Your task to perform on an android device: check storage Image 0: 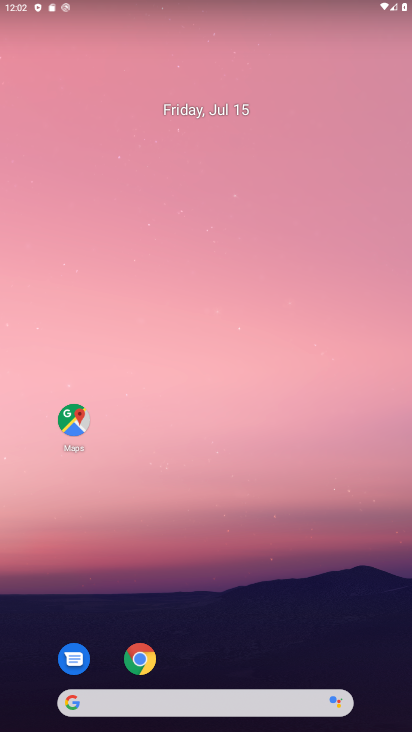
Step 0: drag from (195, 649) to (202, 235)
Your task to perform on an android device: check storage Image 1: 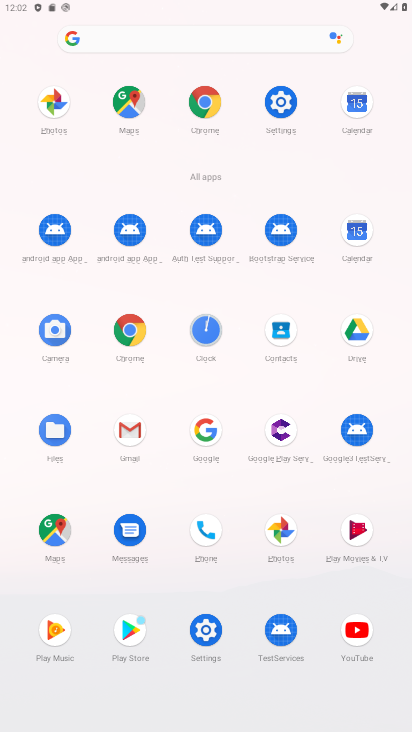
Step 1: click (295, 106)
Your task to perform on an android device: check storage Image 2: 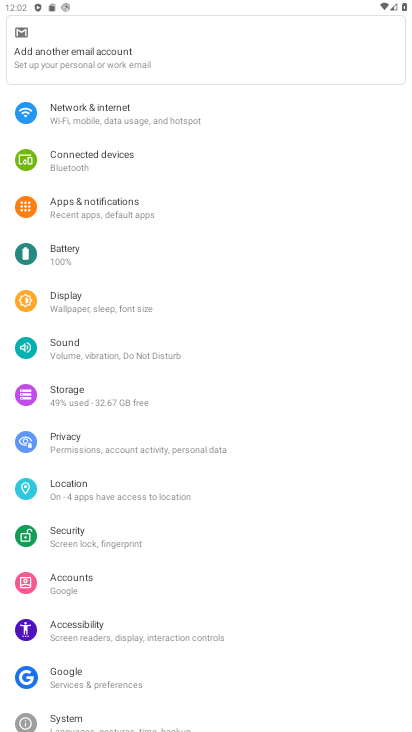
Step 2: click (70, 400)
Your task to perform on an android device: check storage Image 3: 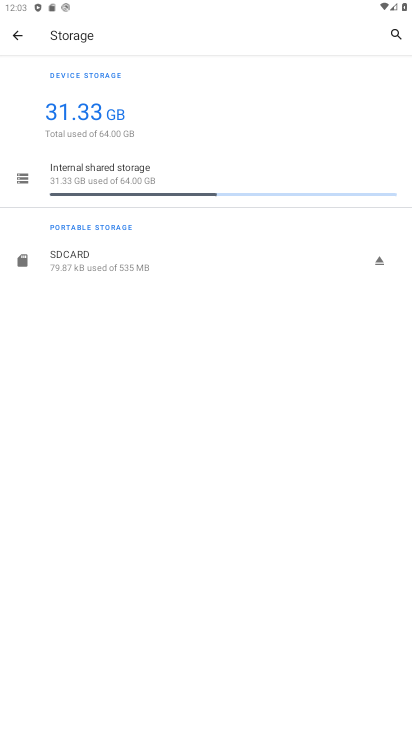
Step 3: task complete